Your task to perform on an android device: Search for floor lamps on article.com Image 0: 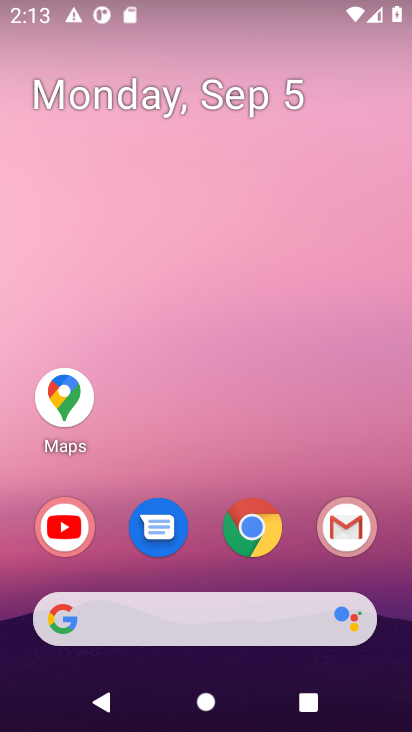
Step 0: click (377, 137)
Your task to perform on an android device: Search for floor lamps on article.com Image 1: 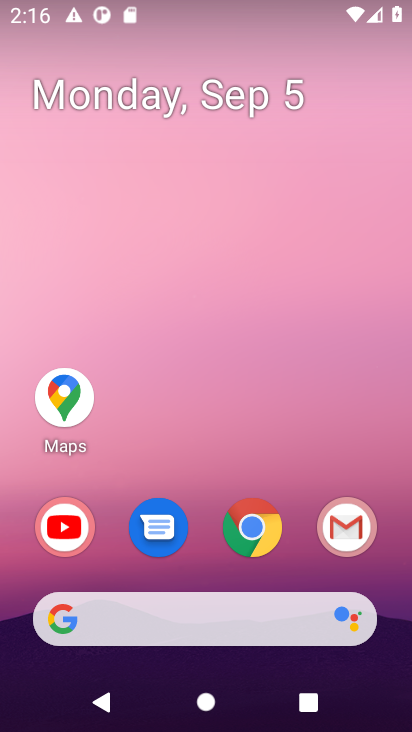
Step 1: click (241, 515)
Your task to perform on an android device: Search for floor lamps on article.com Image 2: 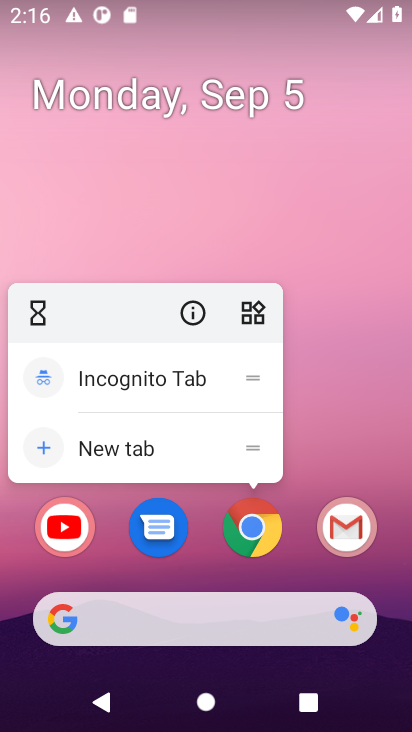
Step 2: click (241, 515)
Your task to perform on an android device: Search for floor lamps on article.com Image 3: 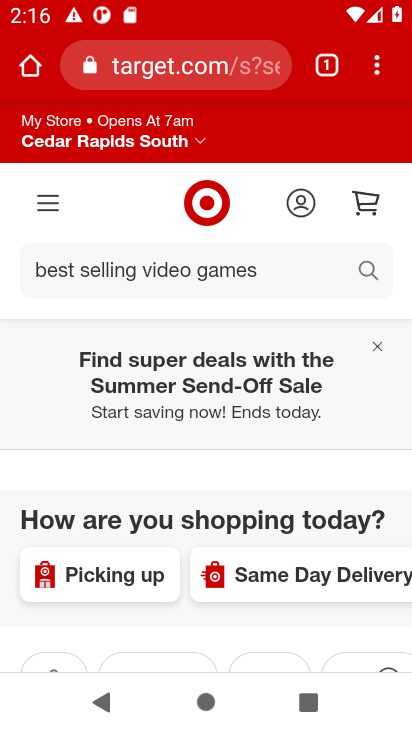
Step 3: click (166, 68)
Your task to perform on an android device: Search for floor lamps on article.com Image 4: 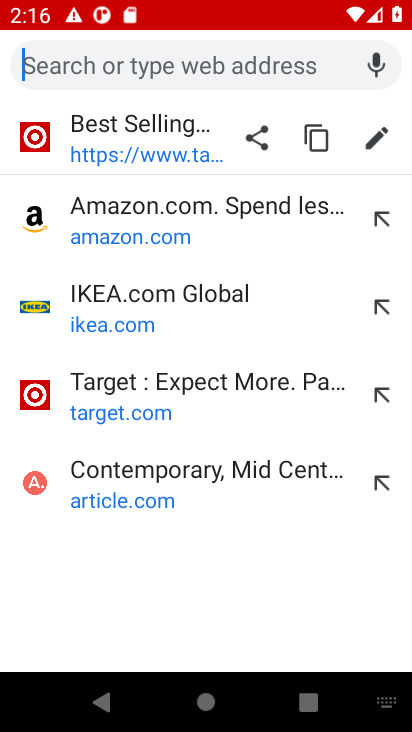
Step 4: type "article.com"
Your task to perform on an android device: Search for floor lamps on article.com Image 5: 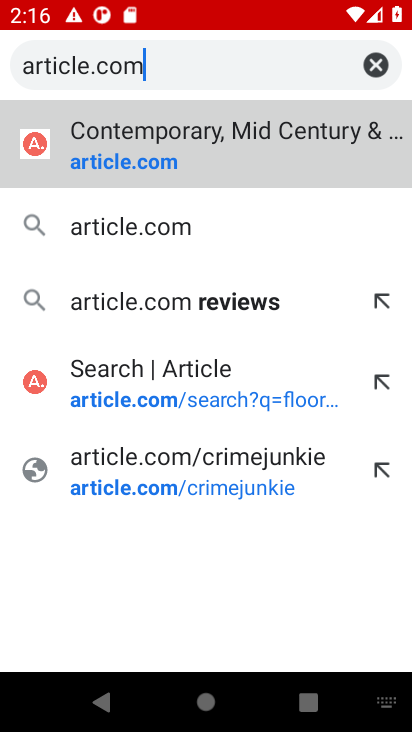
Step 5: click (155, 165)
Your task to perform on an android device: Search for floor lamps on article.com Image 6: 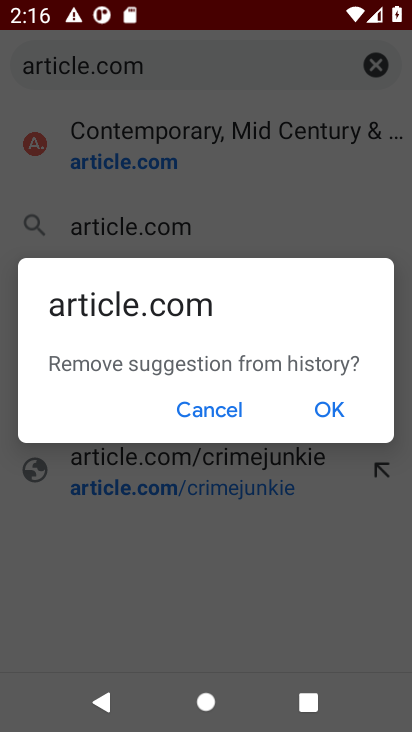
Step 6: click (195, 407)
Your task to perform on an android device: Search for floor lamps on article.com Image 7: 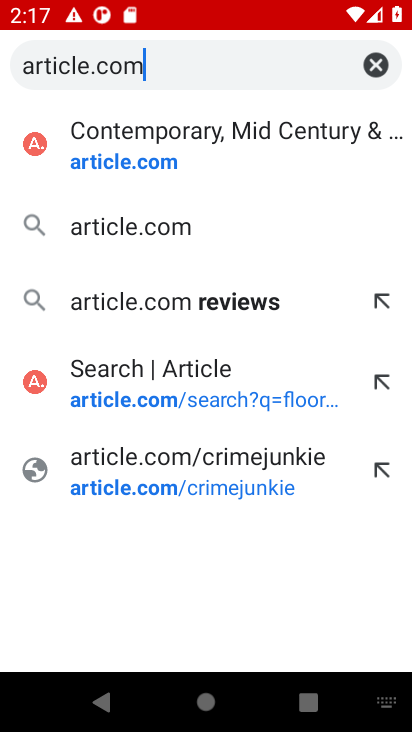
Step 7: click (175, 155)
Your task to perform on an android device: Search for floor lamps on article.com Image 8: 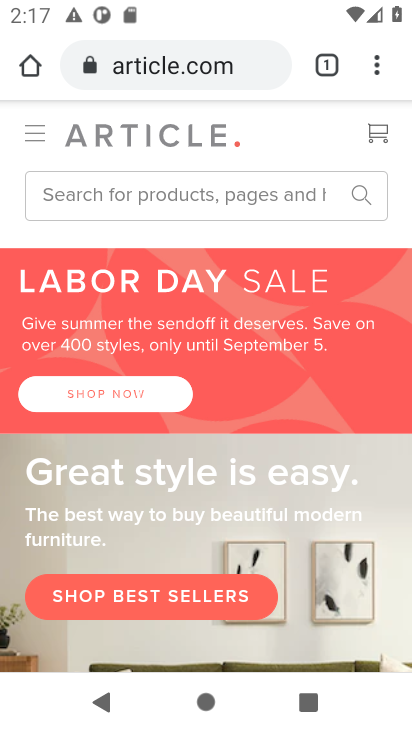
Step 8: click (191, 199)
Your task to perform on an android device: Search for floor lamps on article.com Image 9: 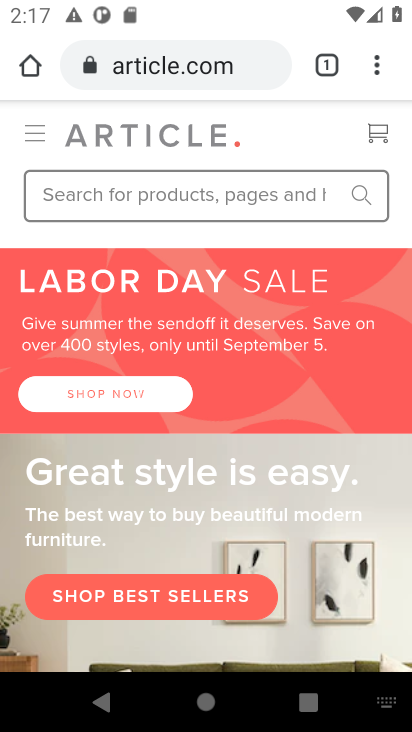
Step 9: type "floor lamps"
Your task to perform on an android device: Search for floor lamps on article.com Image 10: 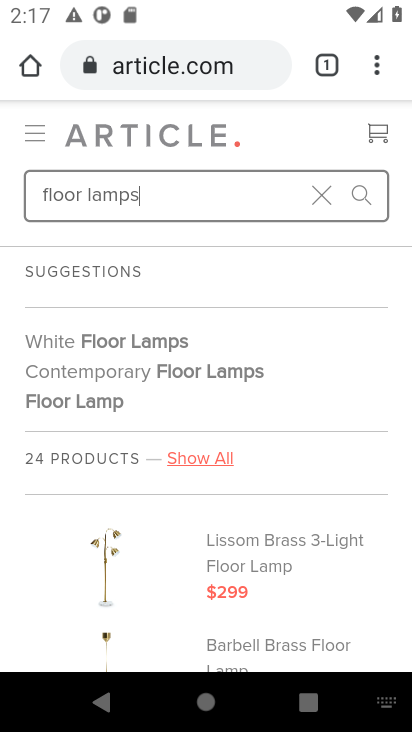
Step 10: click (150, 345)
Your task to perform on an android device: Search for floor lamps on article.com Image 11: 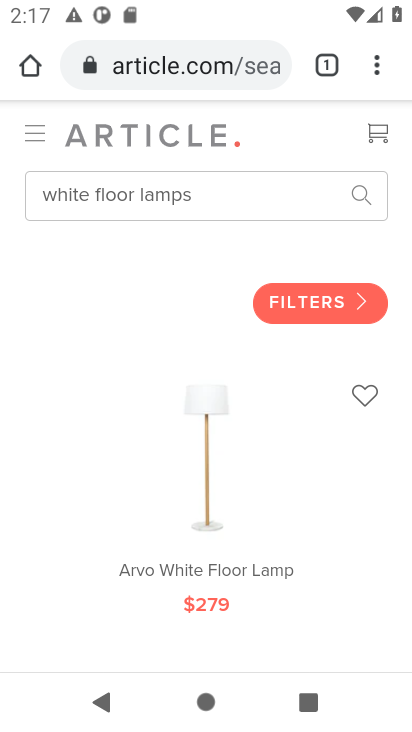
Step 11: task complete